Your task to perform on an android device: What's the weather going to be tomorrow? Image 0: 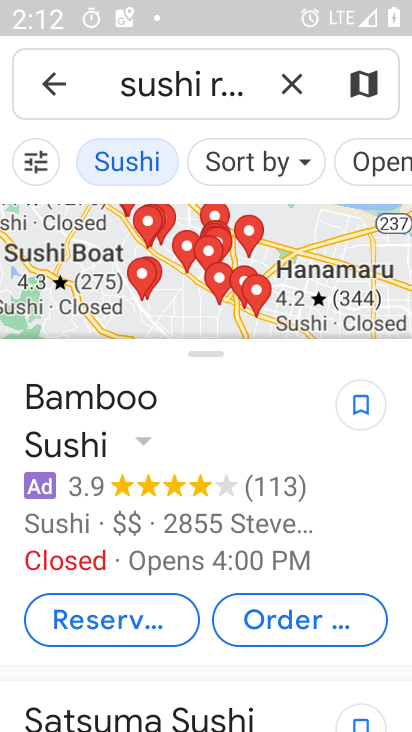
Step 0: press home button
Your task to perform on an android device: What's the weather going to be tomorrow? Image 1: 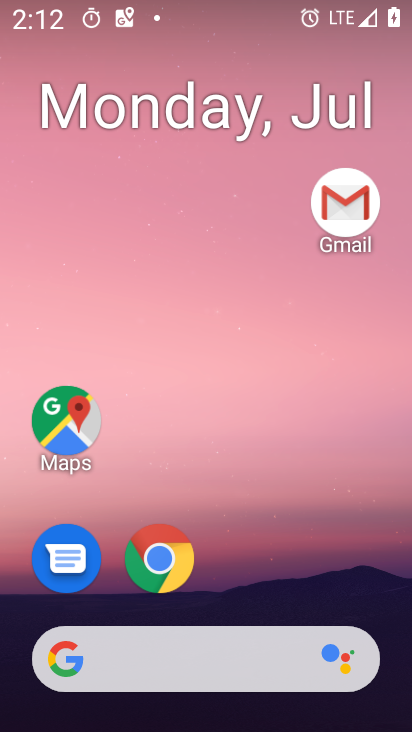
Step 1: click (251, 669)
Your task to perform on an android device: What's the weather going to be tomorrow? Image 2: 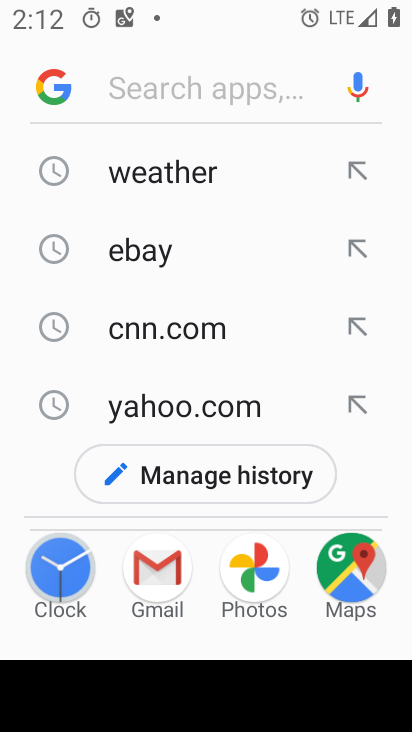
Step 2: click (213, 179)
Your task to perform on an android device: What's the weather going to be tomorrow? Image 3: 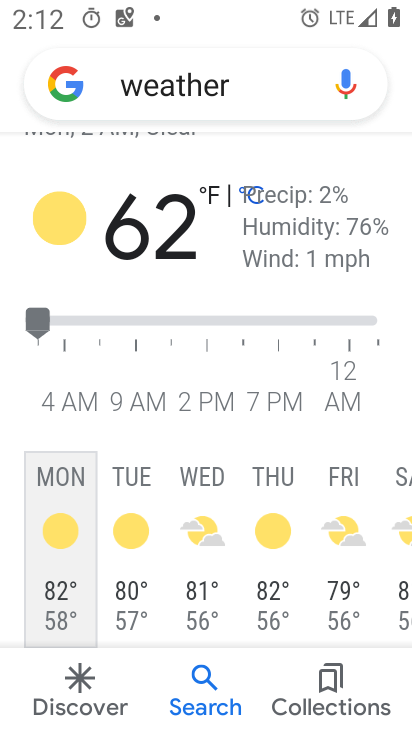
Step 3: click (125, 504)
Your task to perform on an android device: What's the weather going to be tomorrow? Image 4: 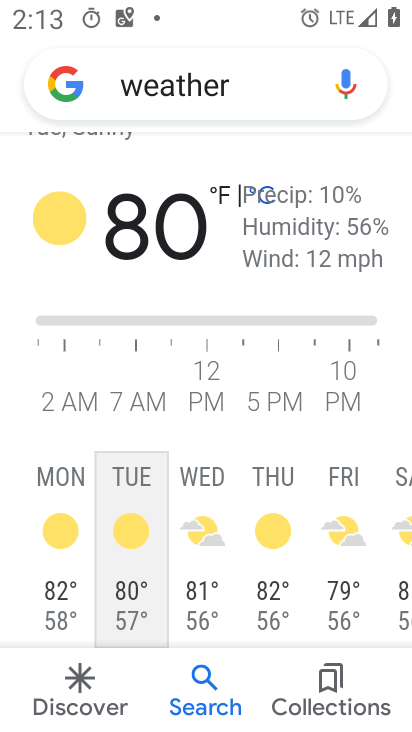
Step 4: task complete